Your task to perform on an android device: Go to wifi settings Image 0: 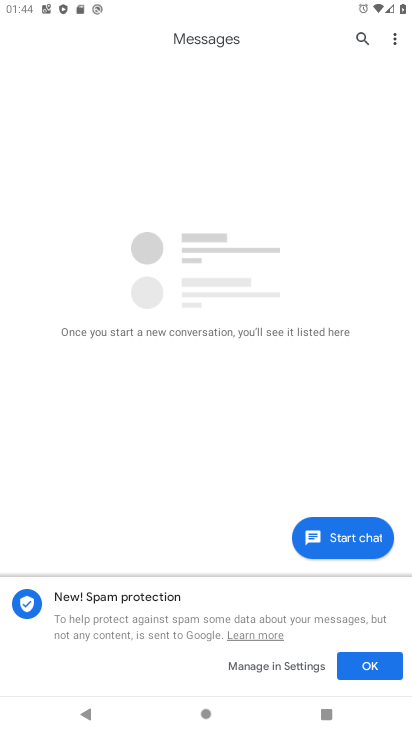
Step 0: press home button
Your task to perform on an android device: Go to wifi settings Image 1: 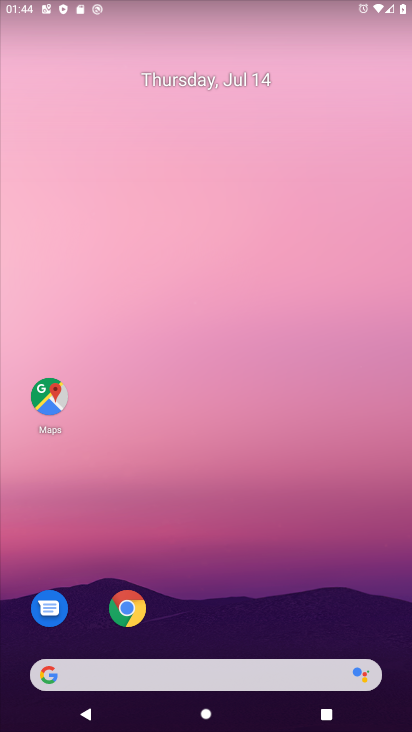
Step 1: drag from (362, 1) to (140, 537)
Your task to perform on an android device: Go to wifi settings Image 2: 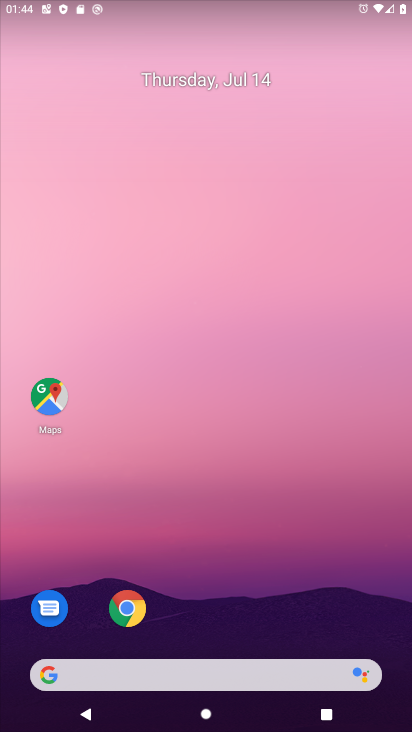
Step 2: drag from (366, 1) to (260, 551)
Your task to perform on an android device: Go to wifi settings Image 3: 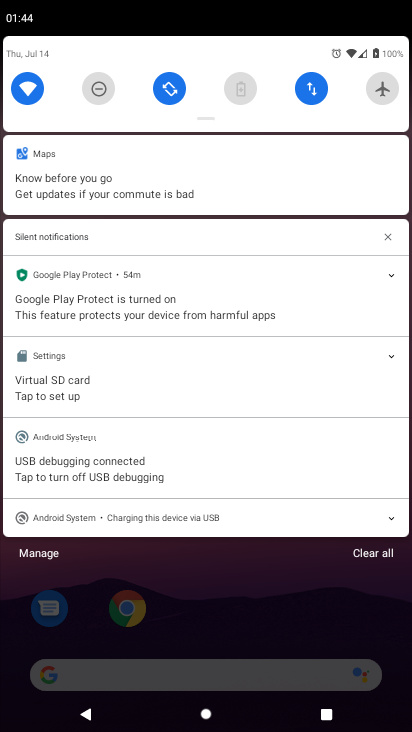
Step 3: click (31, 82)
Your task to perform on an android device: Go to wifi settings Image 4: 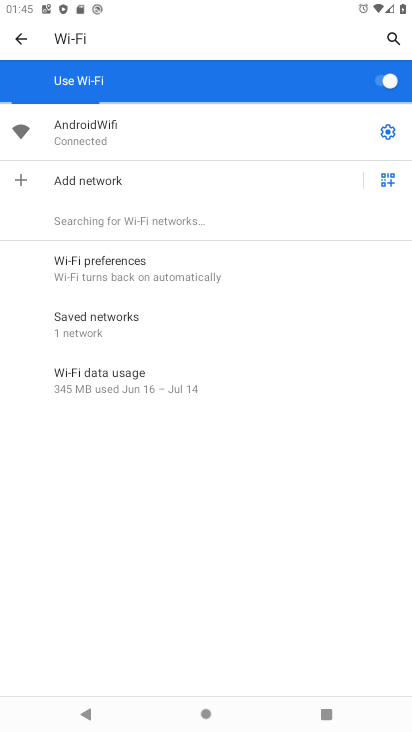
Step 4: task complete